Your task to perform on an android device: Open the map Image 0: 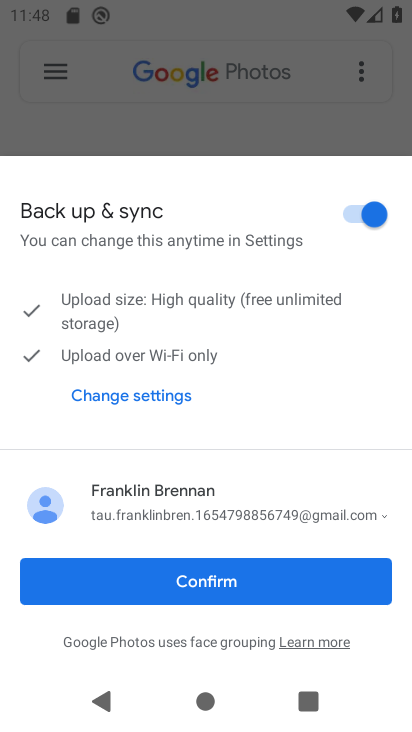
Step 0: click (382, 580)
Your task to perform on an android device: Open the map Image 1: 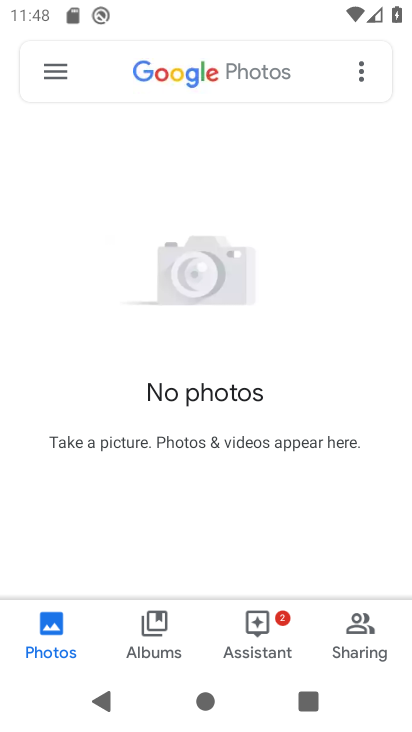
Step 1: press home button
Your task to perform on an android device: Open the map Image 2: 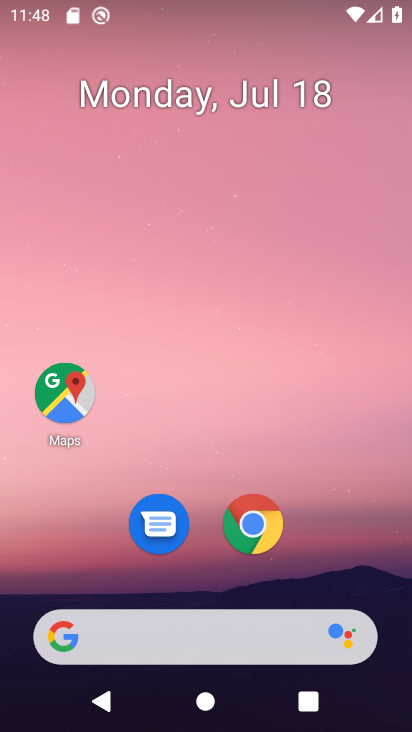
Step 2: click (61, 405)
Your task to perform on an android device: Open the map Image 3: 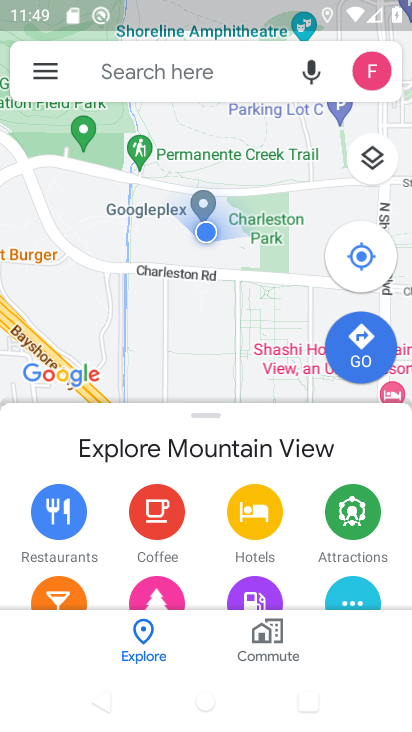
Step 3: task complete